Your task to perform on an android device: Is it going to rain today? Image 0: 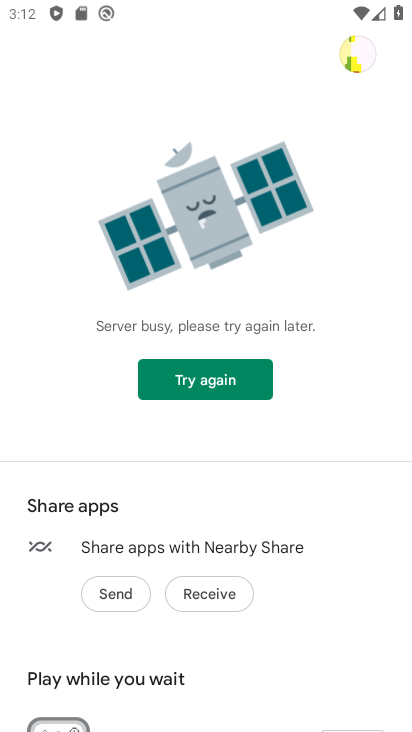
Step 0: press home button
Your task to perform on an android device: Is it going to rain today? Image 1: 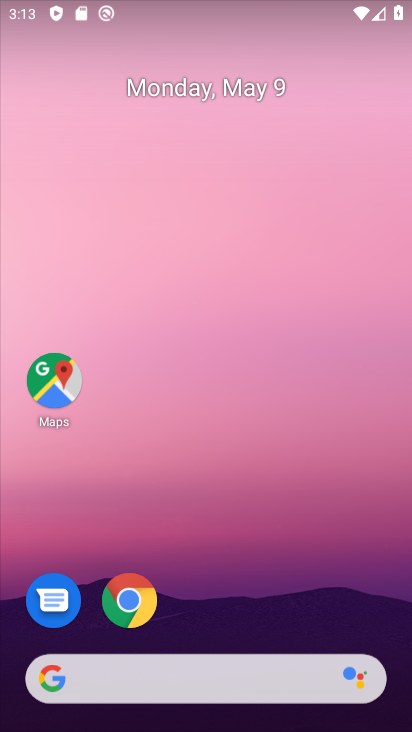
Step 1: drag from (241, 548) to (333, 10)
Your task to perform on an android device: Is it going to rain today? Image 2: 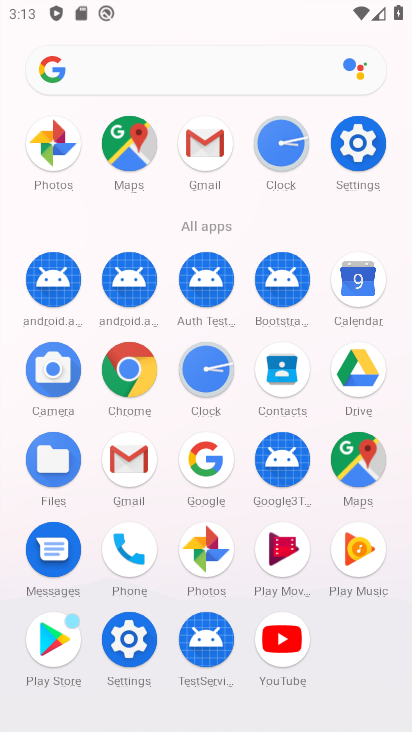
Step 2: press home button
Your task to perform on an android device: Is it going to rain today? Image 3: 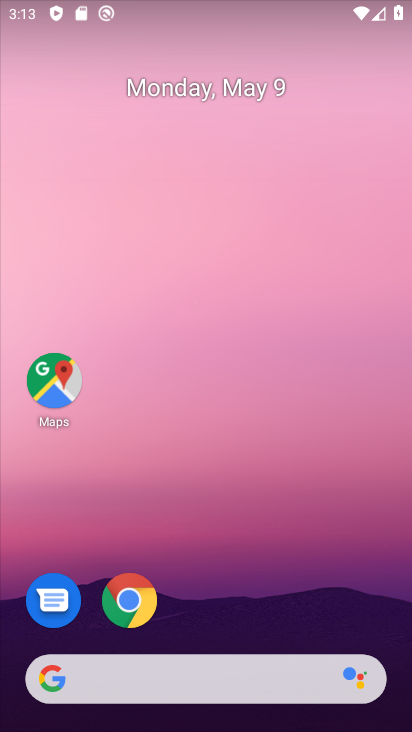
Step 3: click (185, 665)
Your task to perform on an android device: Is it going to rain today? Image 4: 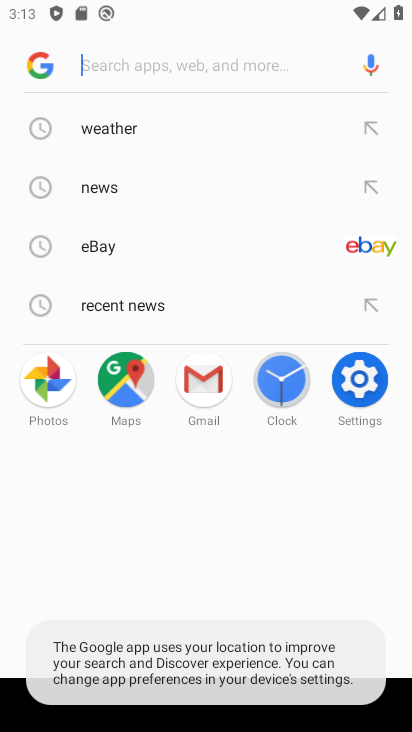
Step 4: click (118, 131)
Your task to perform on an android device: Is it going to rain today? Image 5: 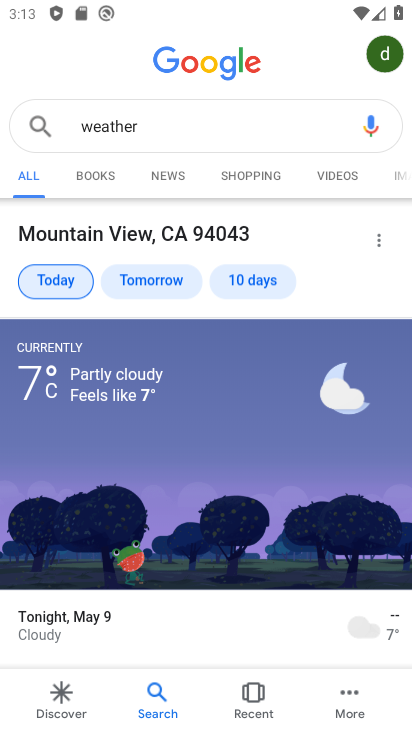
Step 5: task complete